Your task to perform on an android device: Go to accessibility settings Image 0: 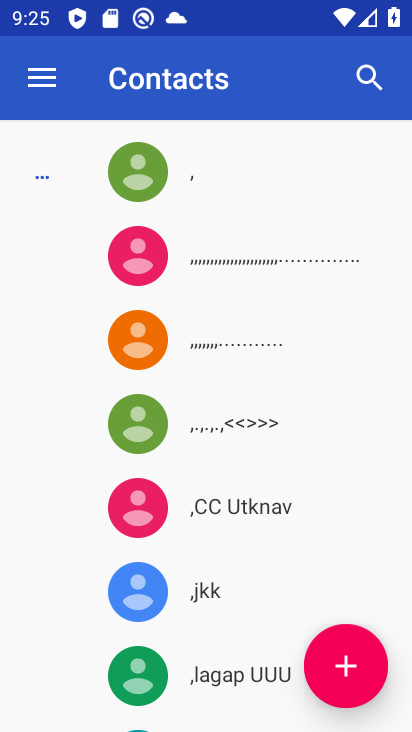
Step 0: press home button
Your task to perform on an android device: Go to accessibility settings Image 1: 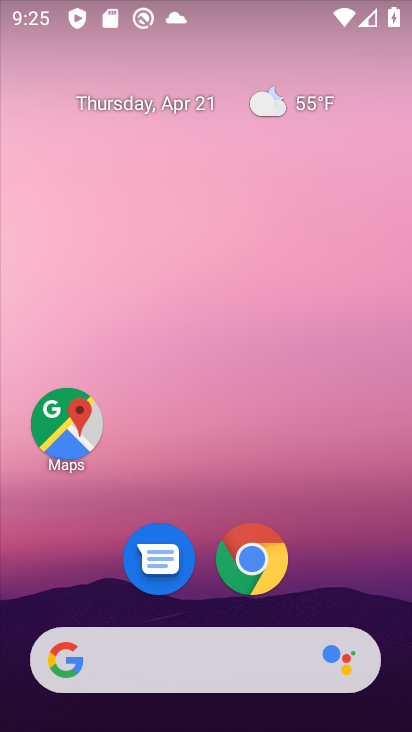
Step 1: drag from (339, 576) to (333, 0)
Your task to perform on an android device: Go to accessibility settings Image 2: 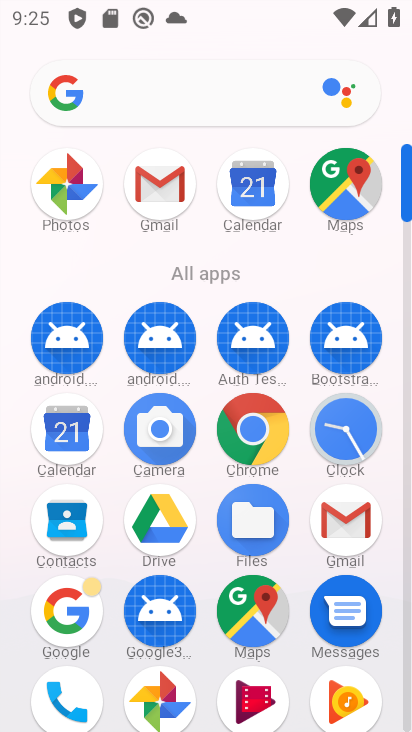
Step 2: drag from (290, 272) to (265, 110)
Your task to perform on an android device: Go to accessibility settings Image 3: 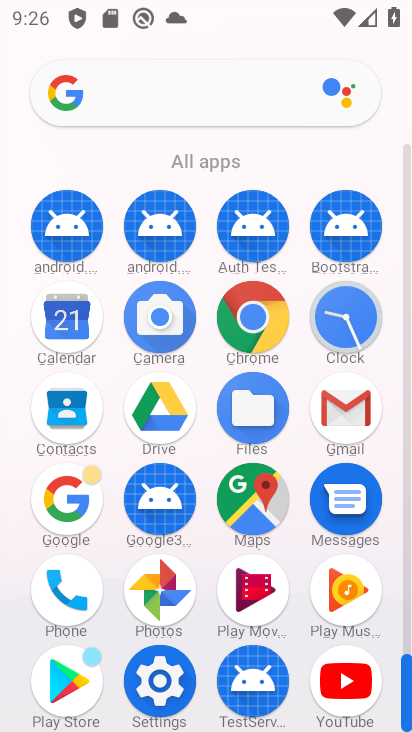
Step 3: click (169, 685)
Your task to perform on an android device: Go to accessibility settings Image 4: 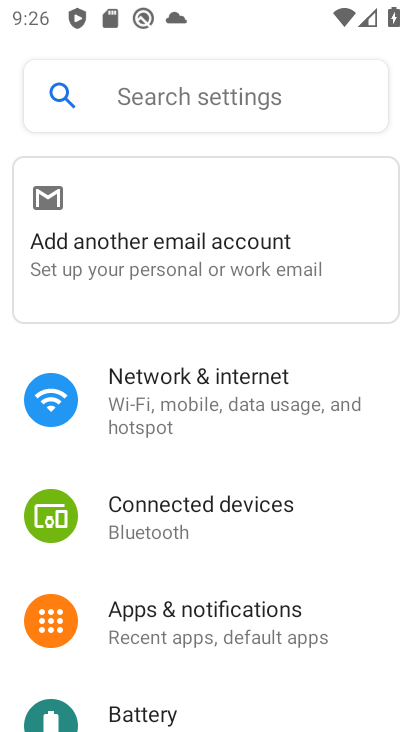
Step 4: drag from (322, 655) to (312, 302)
Your task to perform on an android device: Go to accessibility settings Image 5: 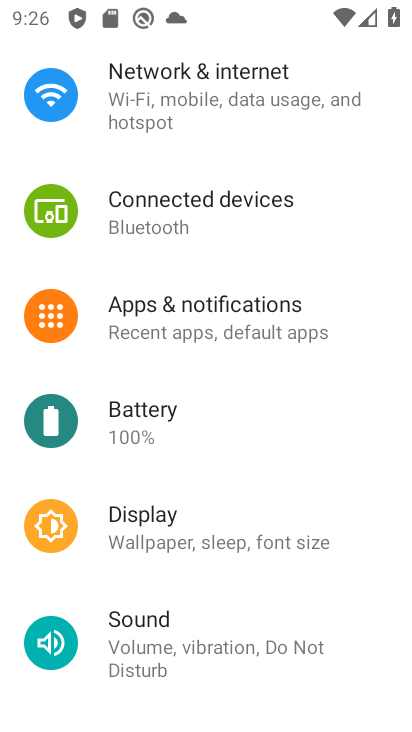
Step 5: drag from (279, 630) to (269, 73)
Your task to perform on an android device: Go to accessibility settings Image 6: 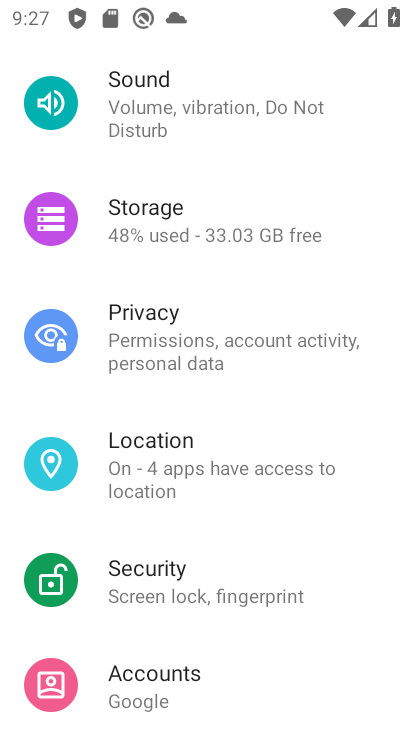
Step 6: drag from (221, 649) to (198, 77)
Your task to perform on an android device: Go to accessibility settings Image 7: 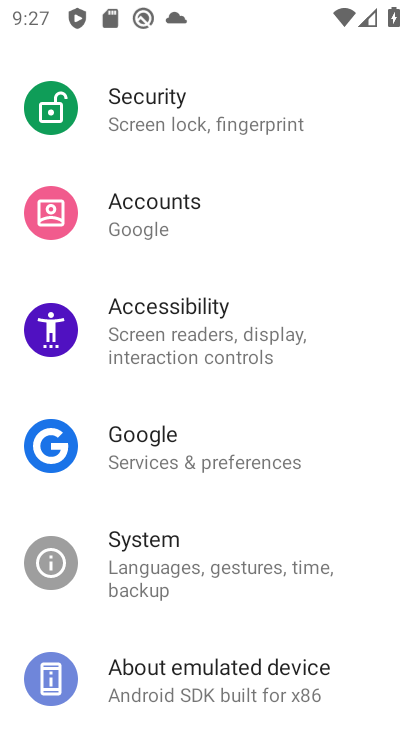
Step 7: click (189, 342)
Your task to perform on an android device: Go to accessibility settings Image 8: 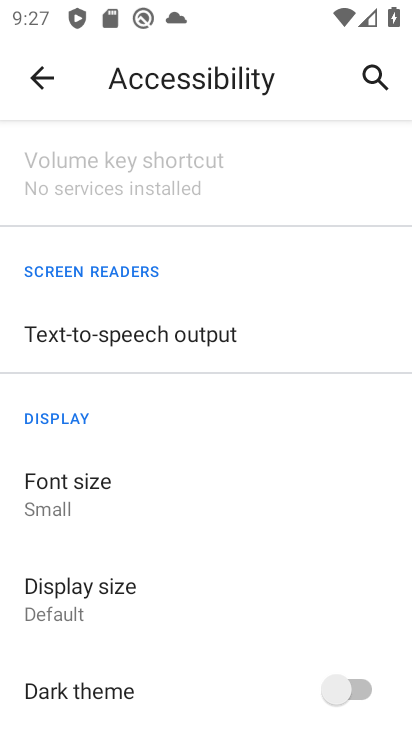
Step 8: task complete